Your task to perform on an android device: Open notification settings Image 0: 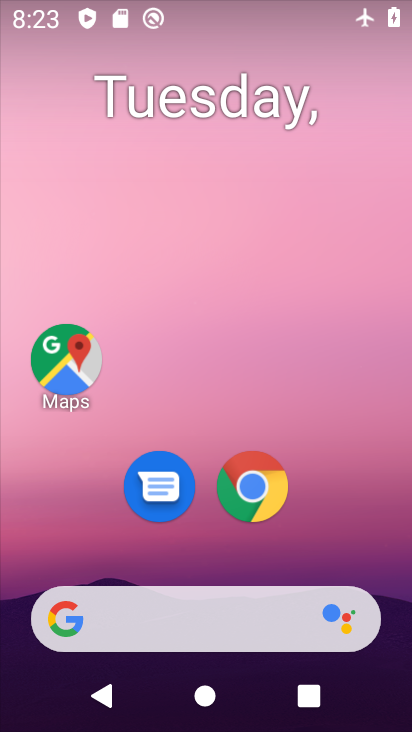
Step 0: drag from (218, 723) to (191, 36)
Your task to perform on an android device: Open notification settings Image 1: 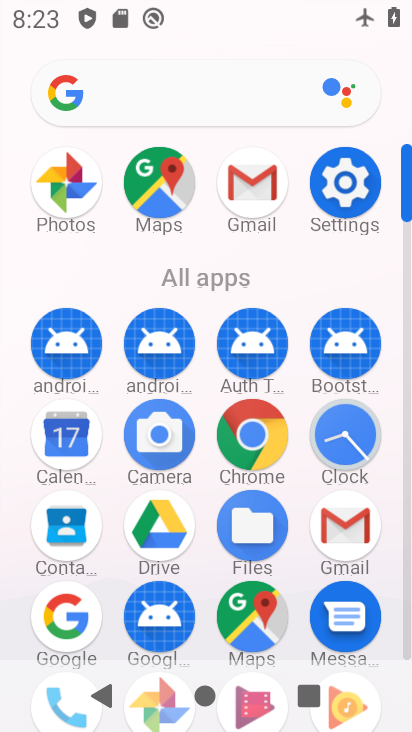
Step 1: click (353, 186)
Your task to perform on an android device: Open notification settings Image 2: 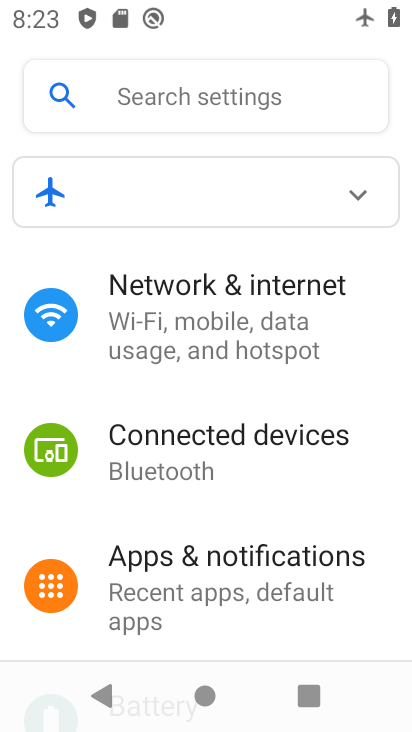
Step 2: click (203, 569)
Your task to perform on an android device: Open notification settings Image 3: 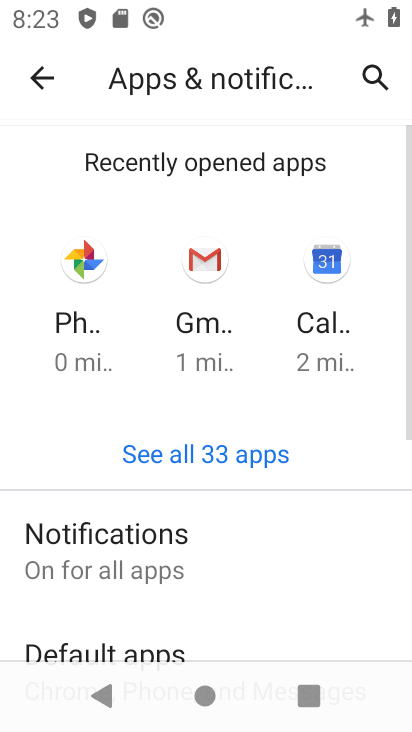
Step 3: click (171, 542)
Your task to perform on an android device: Open notification settings Image 4: 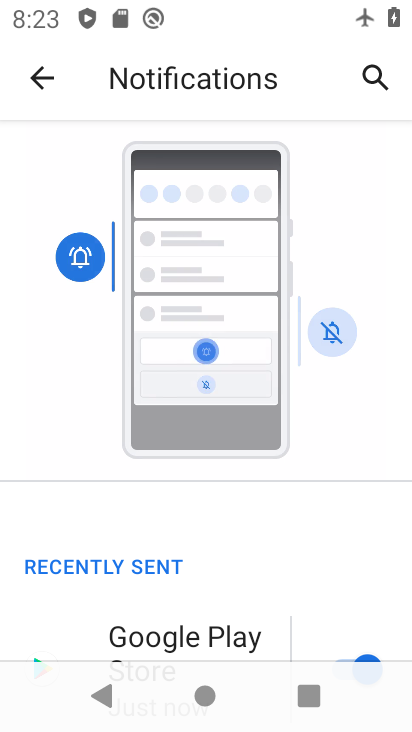
Step 4: task complete